Your task to perform on an android device: Open privacy settings Image 0: 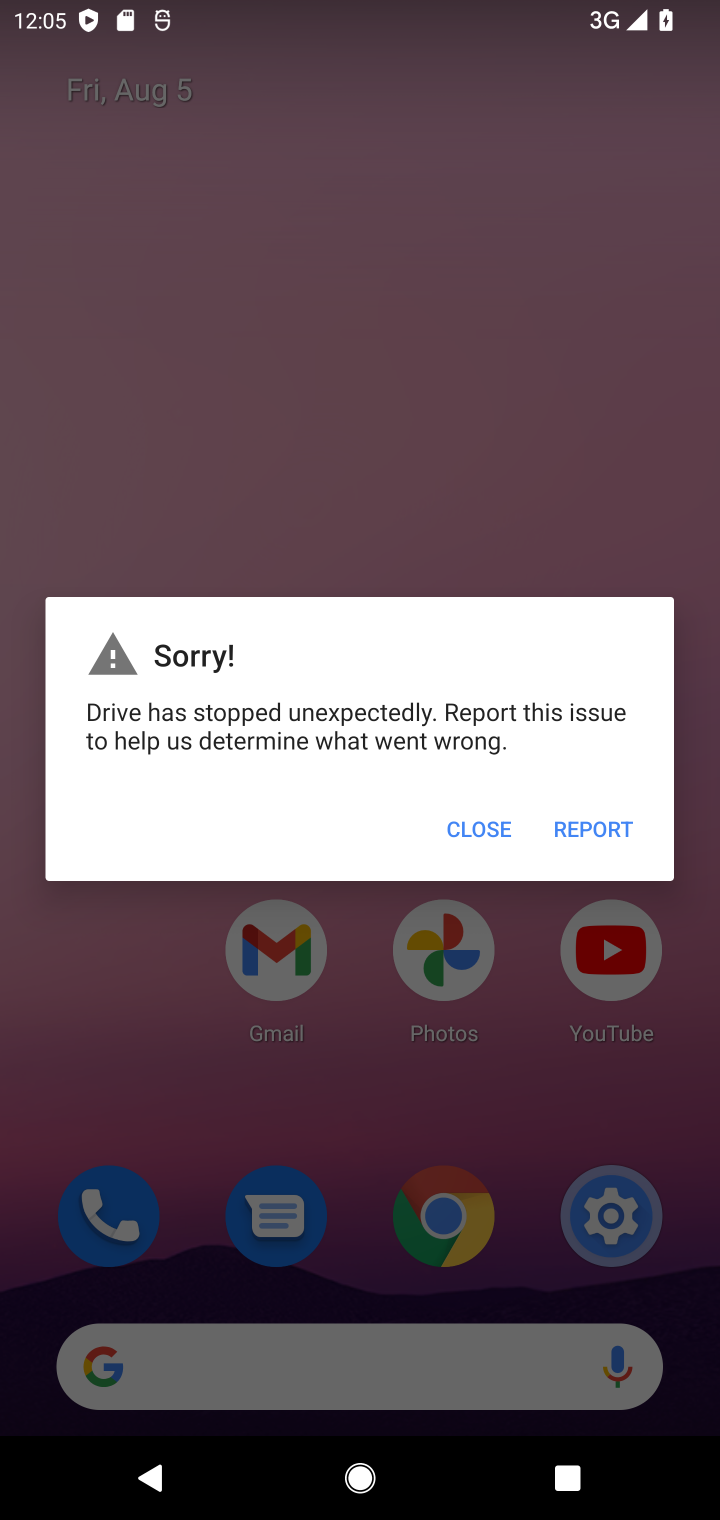
Step 0: press home button
Your task to perform on an android device: Open privacy settings Image 1: 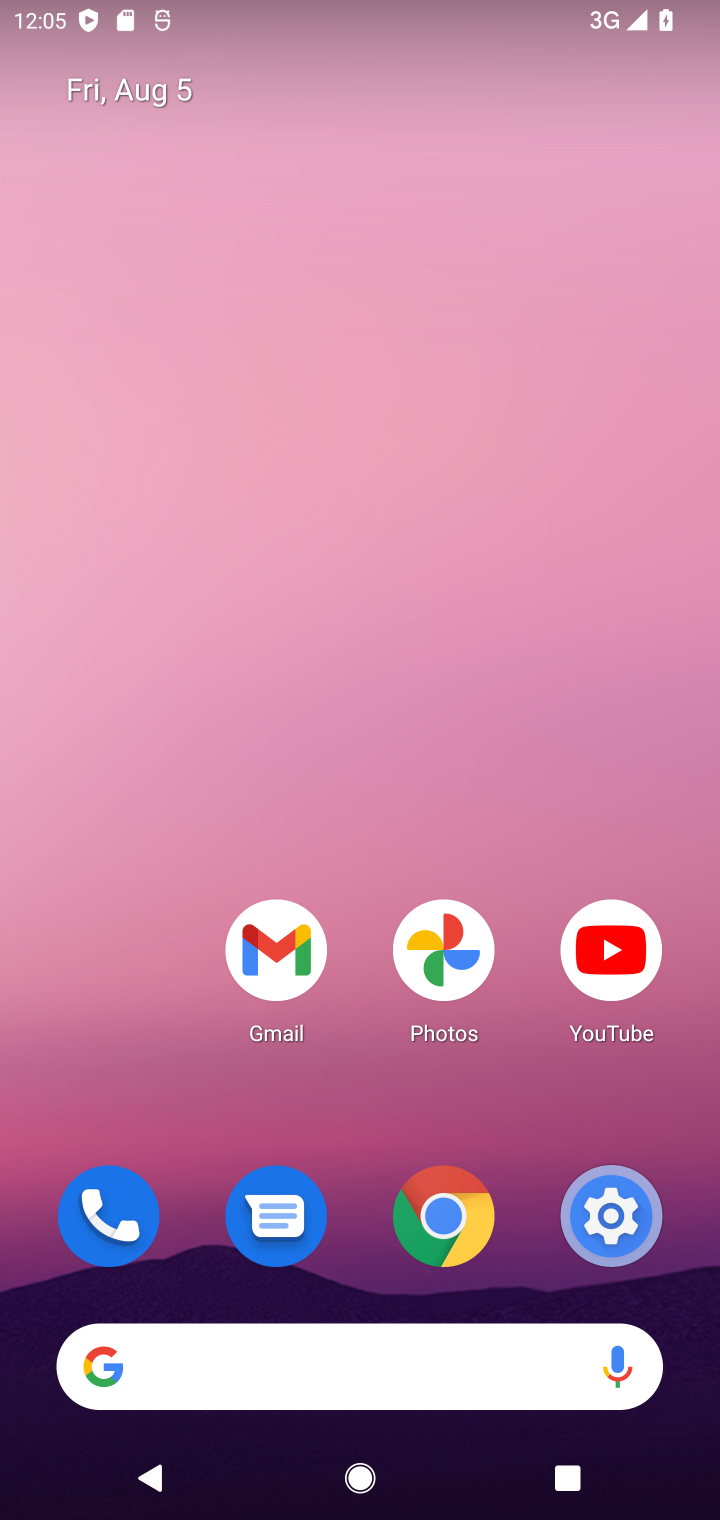
Step 1: drag from (416, 1366) to (507, 13)
Your task to perform on an android device: Open privacy settings Image 2: 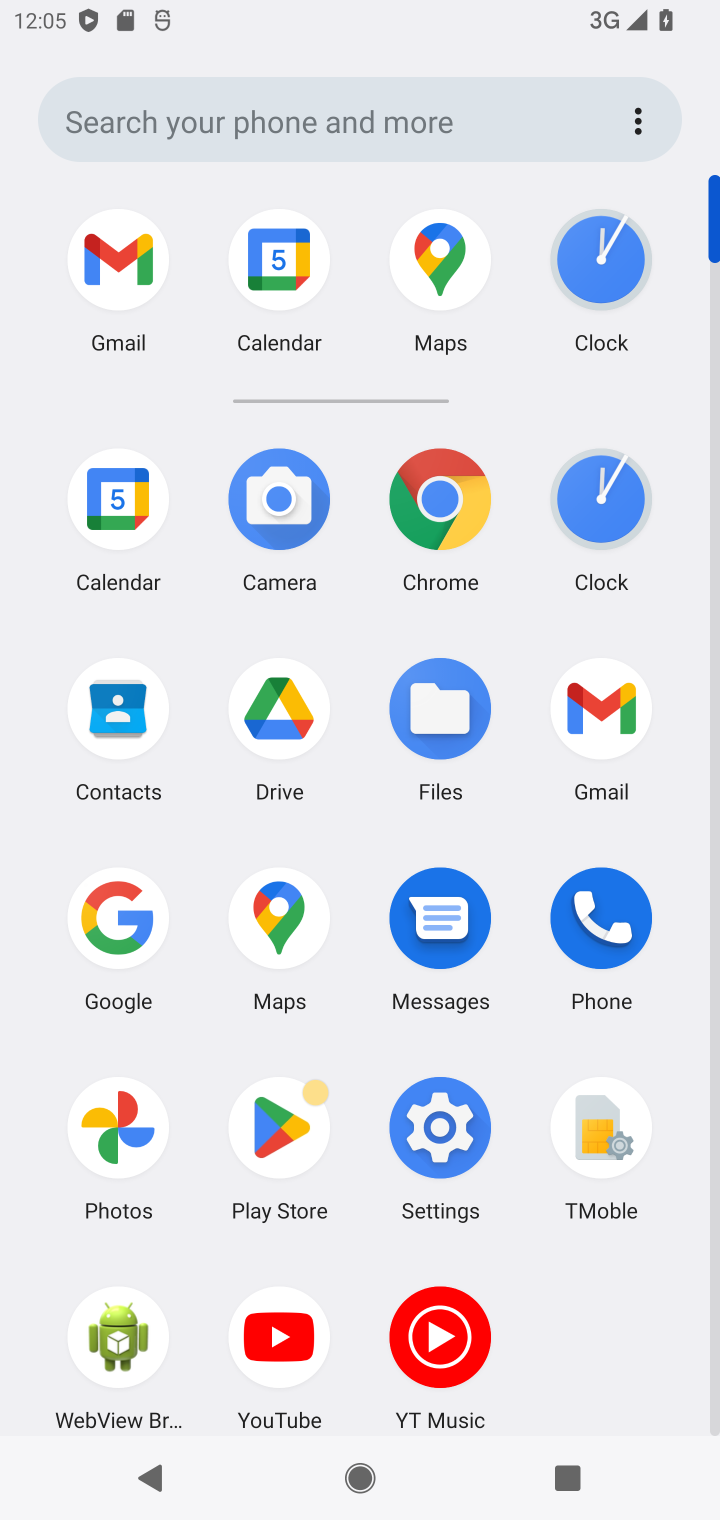
Step 2: click (426, 1149)
Your task to perform on an android device: Open privacy settings Image 3: 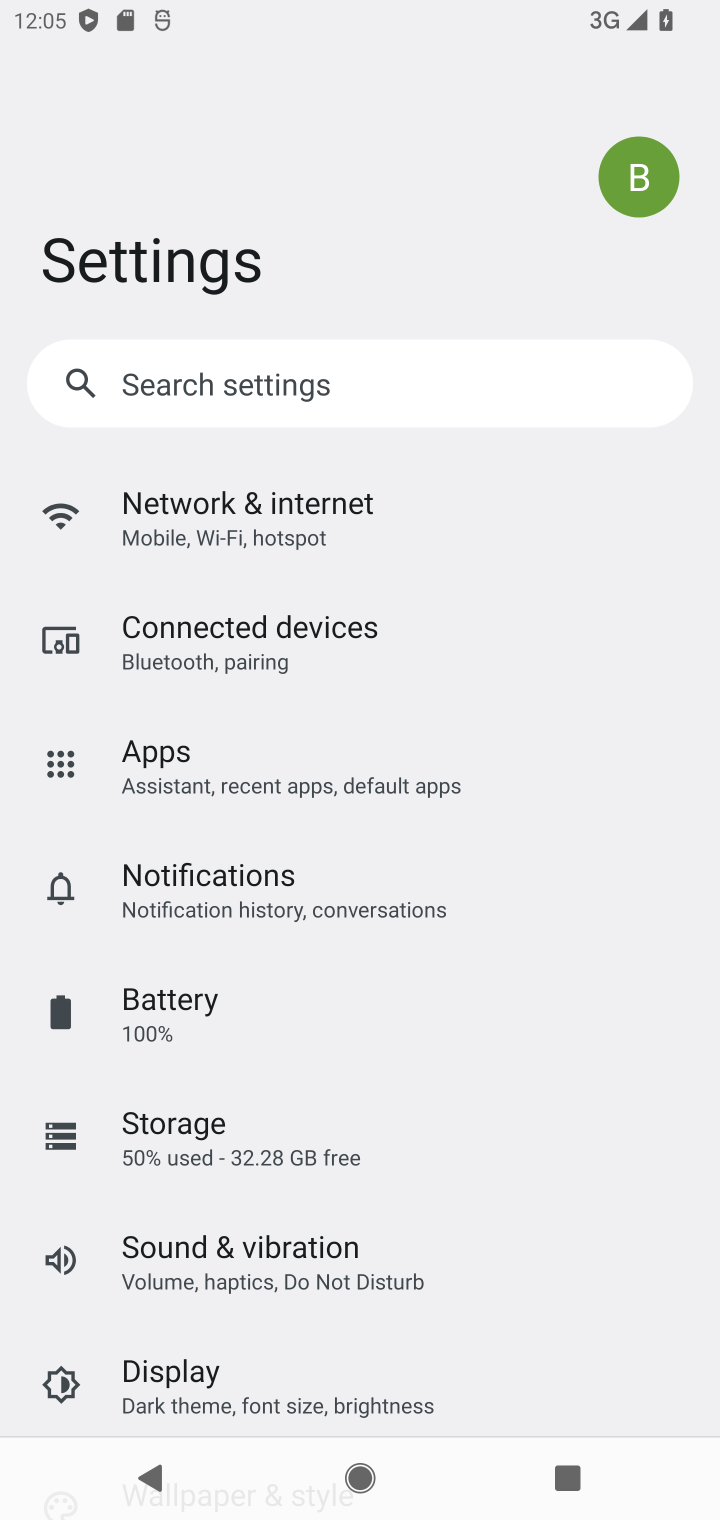
Step 3: drag from (629, 1254) to (501, 169)
Your task to perform on an android device: Open privacy settings Image 4: 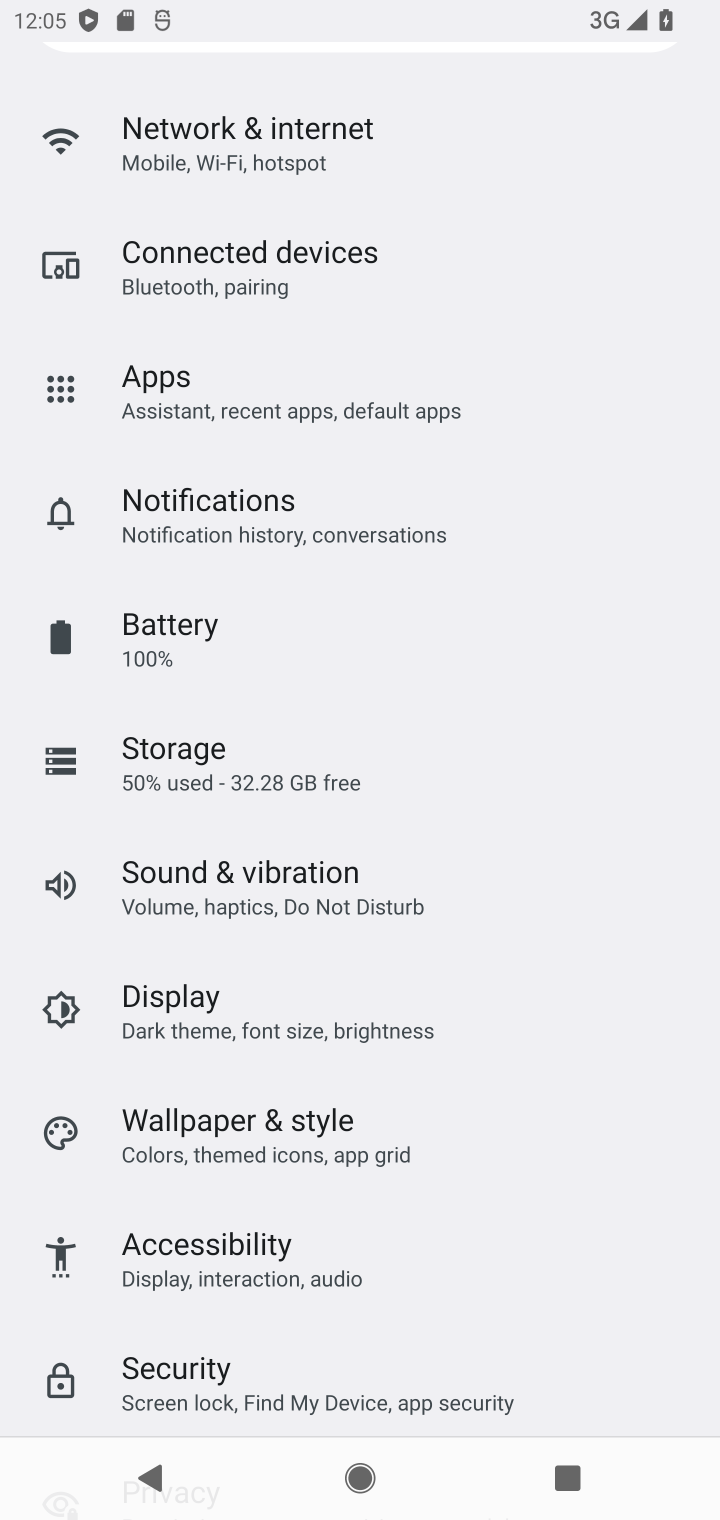
Step 4: drag from (629, 1220) to (643, 408)
Your task to perform on an android device: Open privacy settings Image 5: 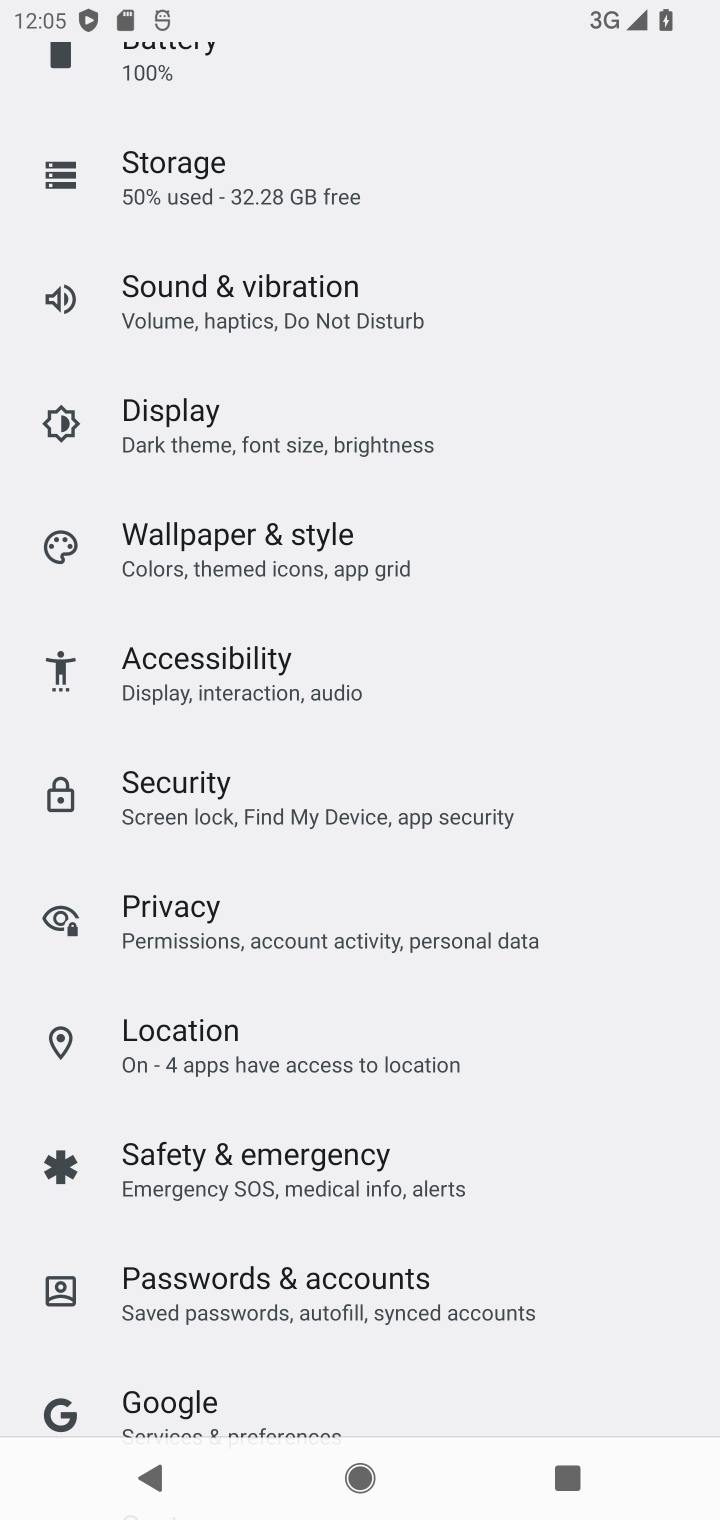
Step 5: click (225, 895)
Your task to perform on an android device: Open privacy settings Image 6: 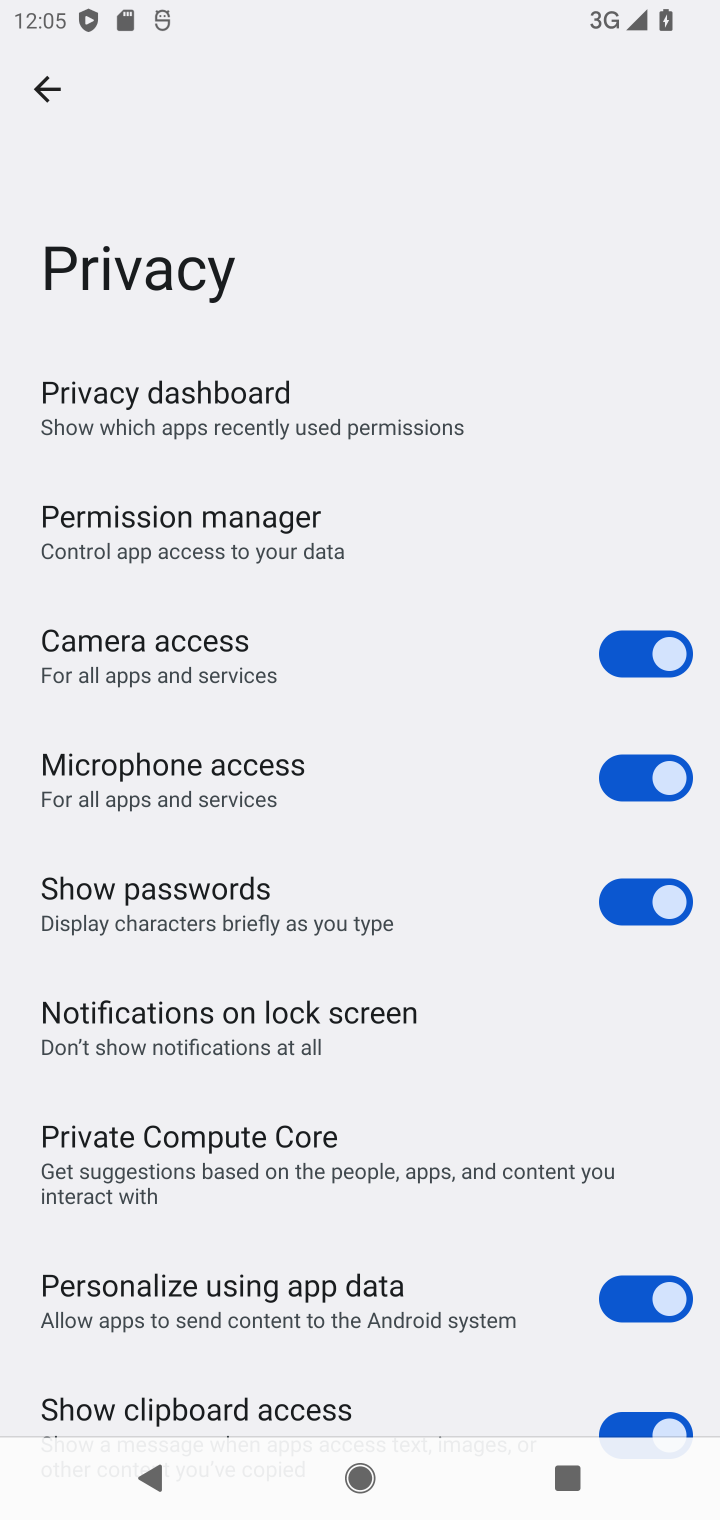
Step 6: task complete